Your task to perform on an android device: change notification settings in the gmail app Image 0: 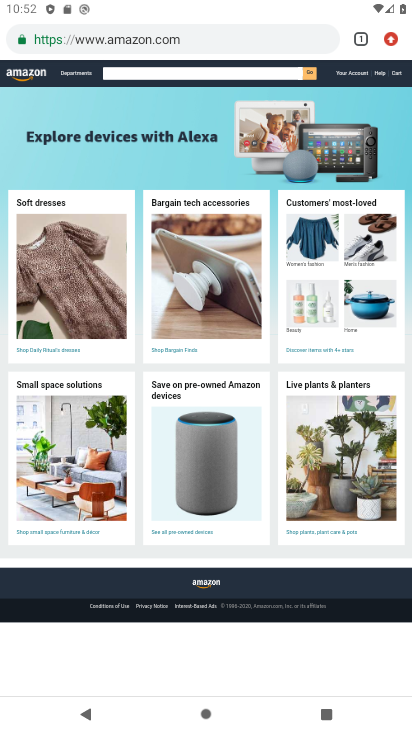
Step 0: press home button
Your task to perform on an android device: change notification settings in the gmail app Image 1: 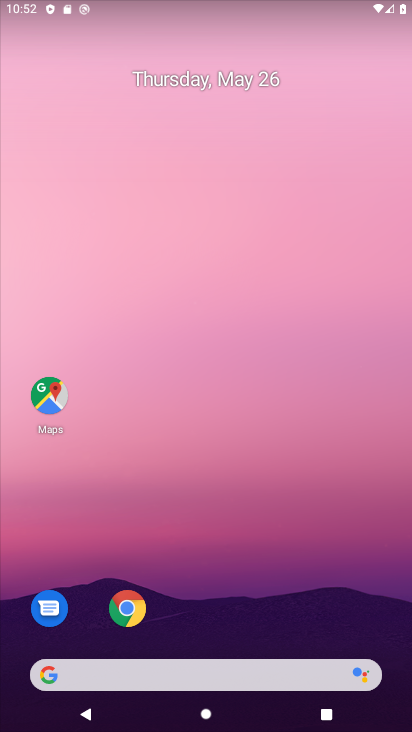
Step 1: drag from (299, 581) to (285, 103)
Your task to perform on an android device: change notification settings in the gmail app Image 2: 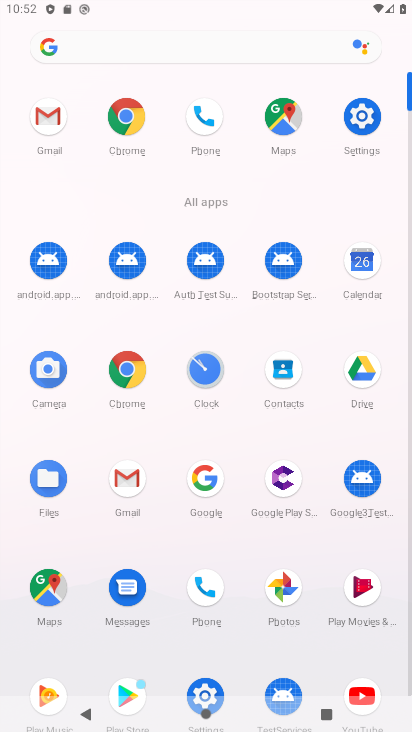
Step 2: click (49, 124)
Your task to perform on an android device: change notification settings in the gmail app Image 3: 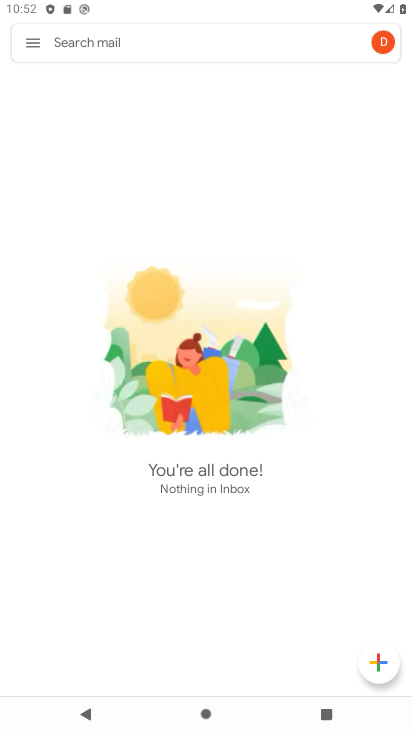
Step 3: click (31, 40)
Your task to perform on an android device: change notification settings in the gmail app Image 4: 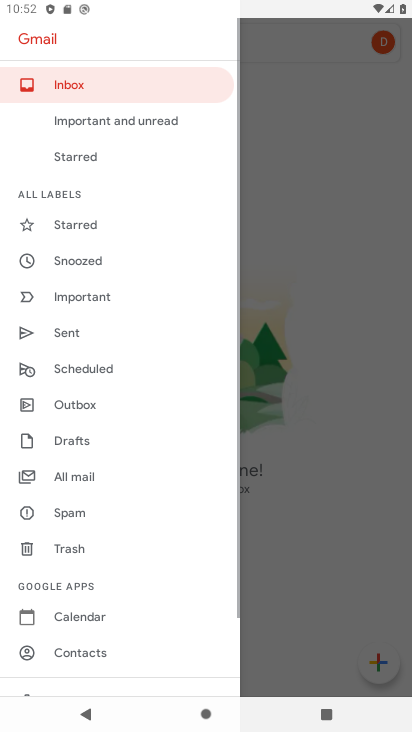
Step 4: drag from (82, 644) to (149, 239)
Your task to perform on an android device: change notification settings in the gmail app Image 5: 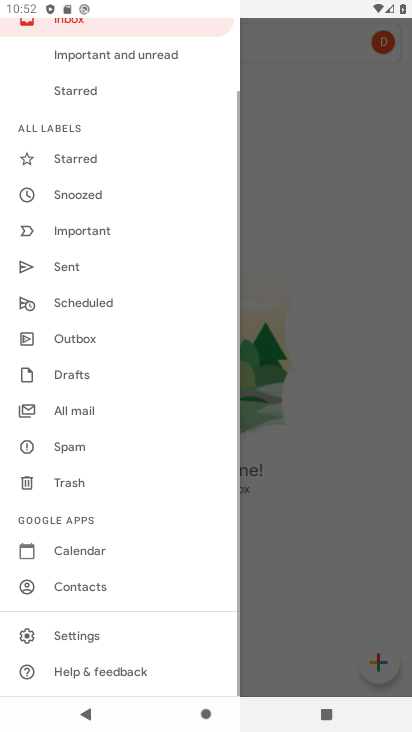
Step 5: click (90, 647)
Your task to perform on an android device: change notification settings in the gmail app Image 6: 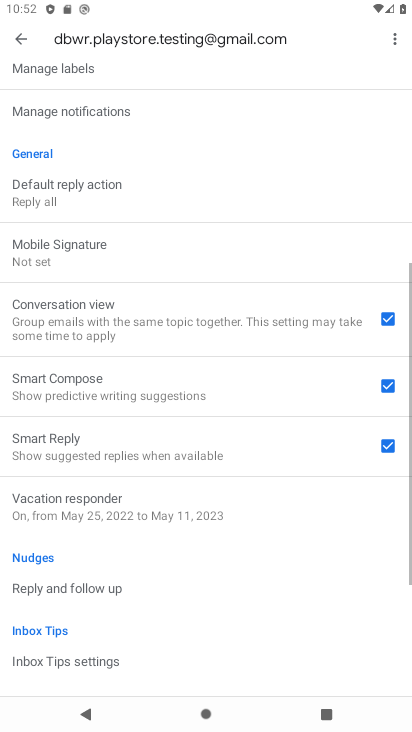
Step 6: drag from (181, 200) to (212, 687)
Your task to perform on an android device: change notification settings in the gmail app Image 7: 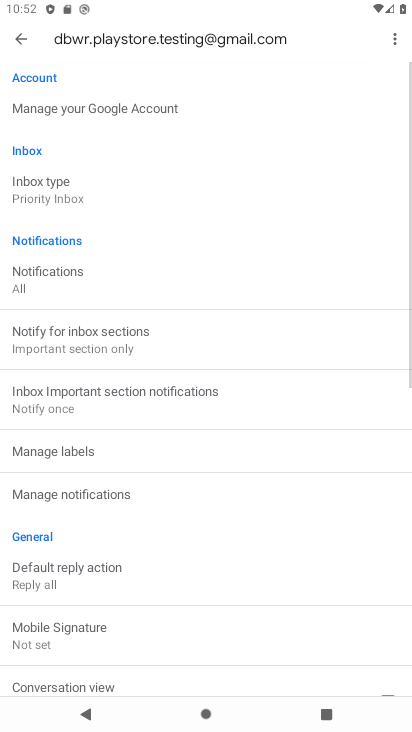
Step 7: drag from (160, 128) to (152, 477)
Your task to perform on an android device: change notification settings in the gmail app Image 8: 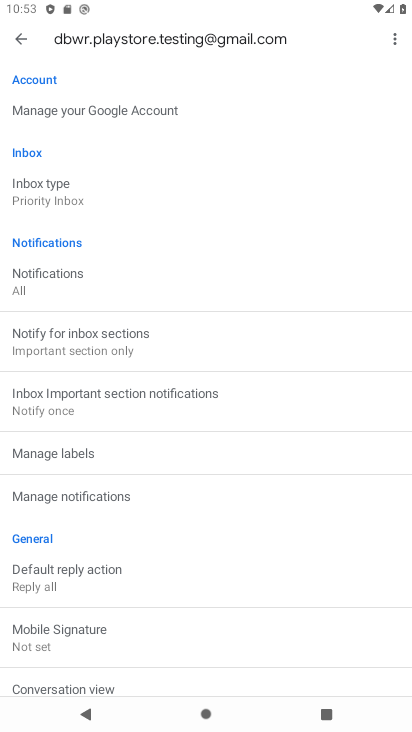
Step 8: click (83, 500)
Your task to perform on an android device: change notification settings in the gmail app Image 9: 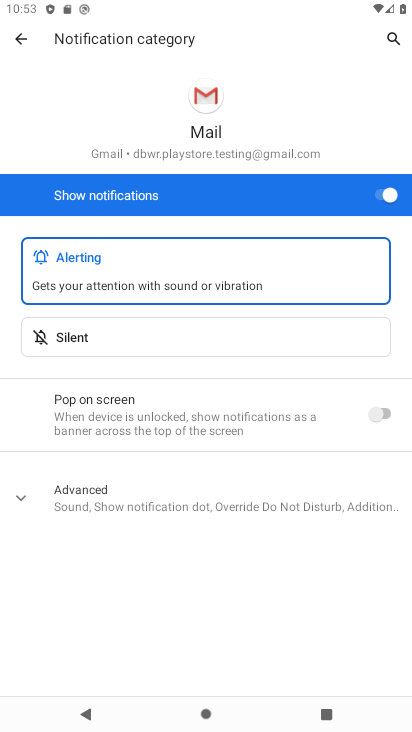
Step 9: click (377, 188)
Your task to perform on an android device: change notification settings in the gmail app Image 10: 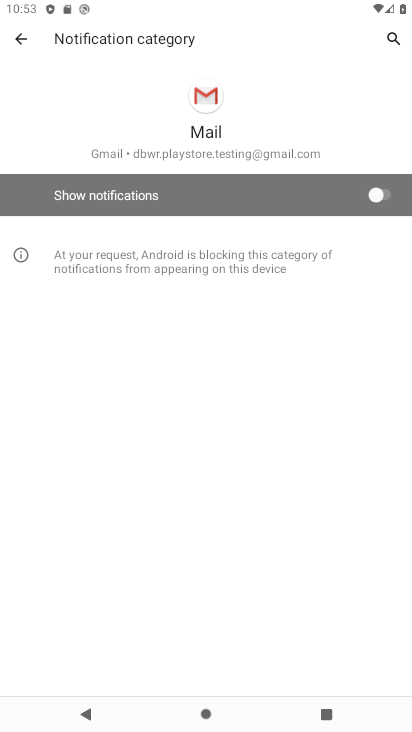
Step 10: task complete